Your task to perform on an android device: Clear the cart on amazon. Image 0: 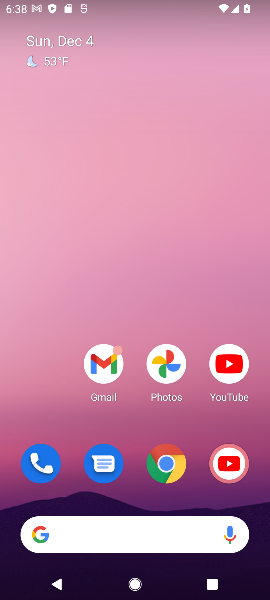
Step 0: click (114, 528)
Your task to perform on an android device: Clear the cart on amazon. Image 1: 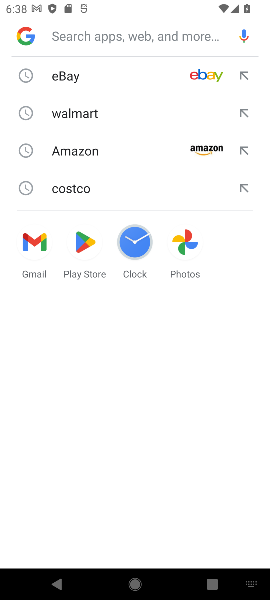
Step 1: click (75, 153)
Your task to perform on an android device: Clear the cart on amazon. Image 2: 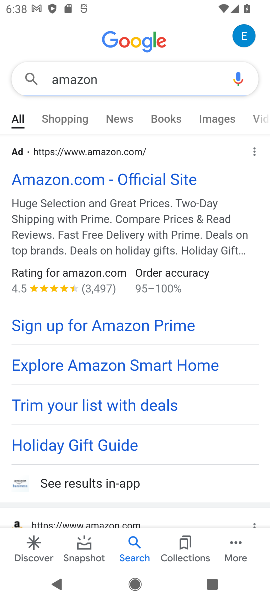
Step 2: click (90, 173)
Your task to perform on an android device: Clear the cart on amazon. Image 3: 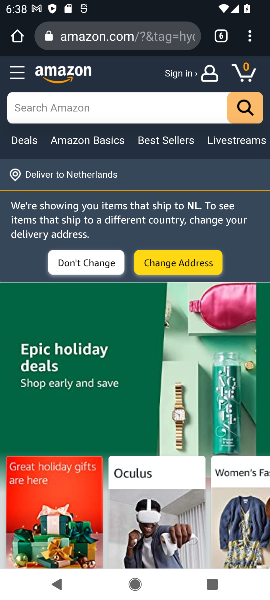
Step 3: click (90, 111)
Your task to perform on an android device: Clear the cart on amazon. Image 4: 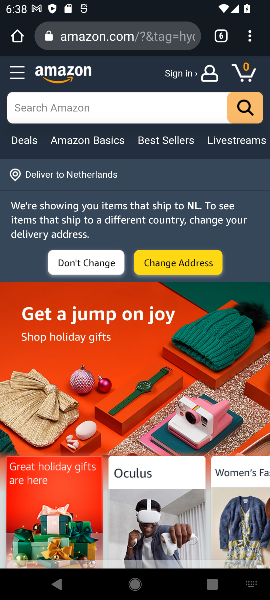
Step 4: task complete